Your task to perform on an android device: Open network settings Image 0: 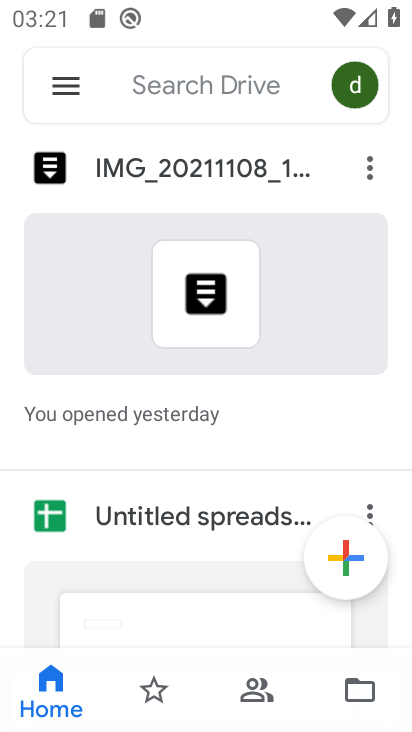
Step 0: press home button
Your task to perform on an android device: Open network settings Image 1: 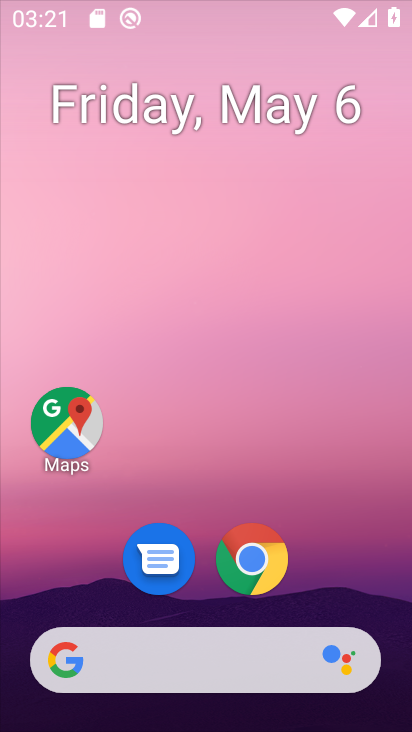
Step 1: drag from (298, 599) to (353, 73)
Your task to perform on an android device: Open network settings Image 2: 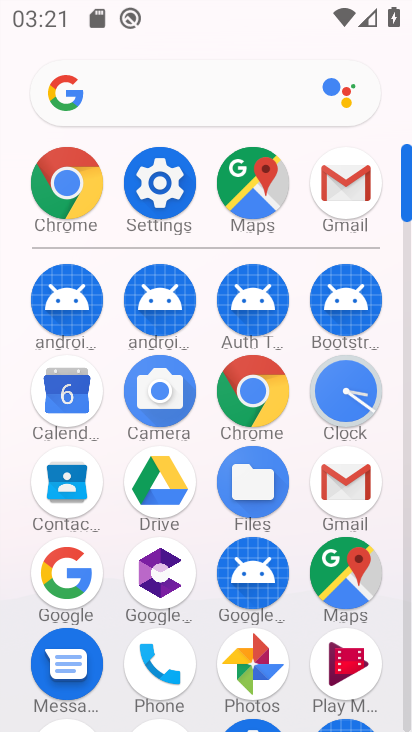
Step 2: click (154, 175)
Your task to perform on an android device: Open network settings Image 3: 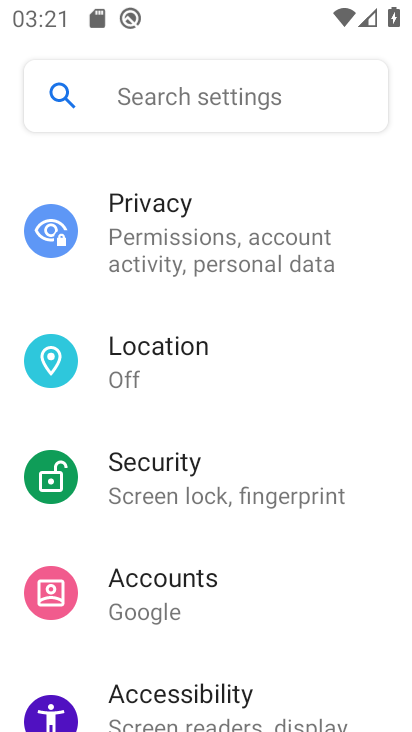
Step 3: drag from (161, 207) to (174, 676)
Your task to perform on an android device: Open network settings Image 4: 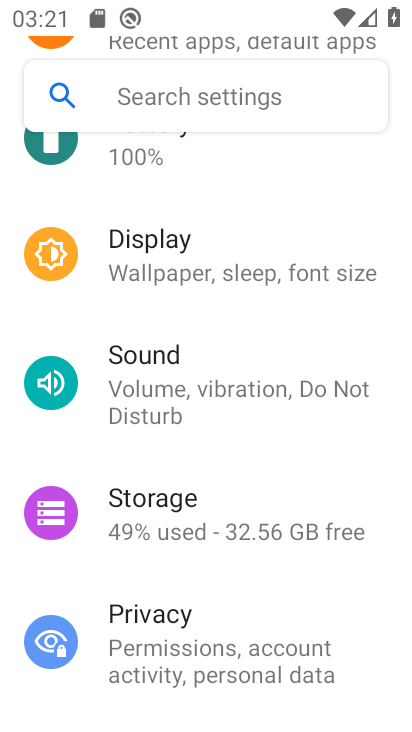
Step 4: drag from (153, 175) to (164, 678)
Your task to perform on an android device: Open network settings Image 5: 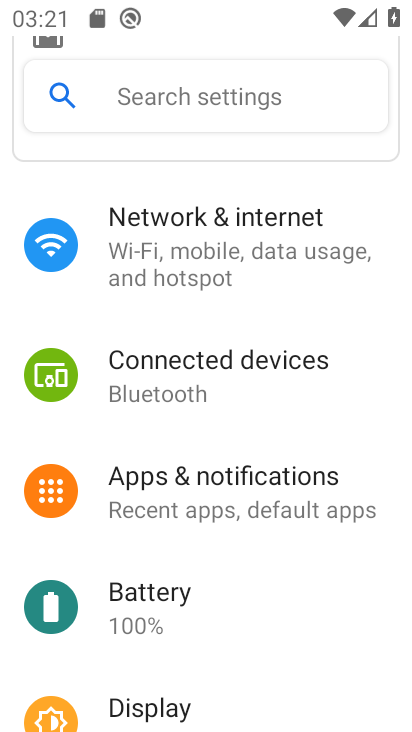
Step 5: click (186, 278)
Your task to perform on an android device: Open network settings Image 6: 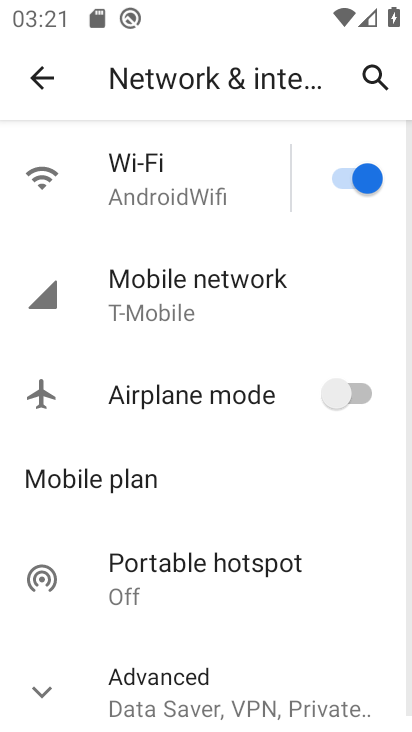
Step 6: click (171, 278)
Your task to perform on an android device: Open network settings Image 7: 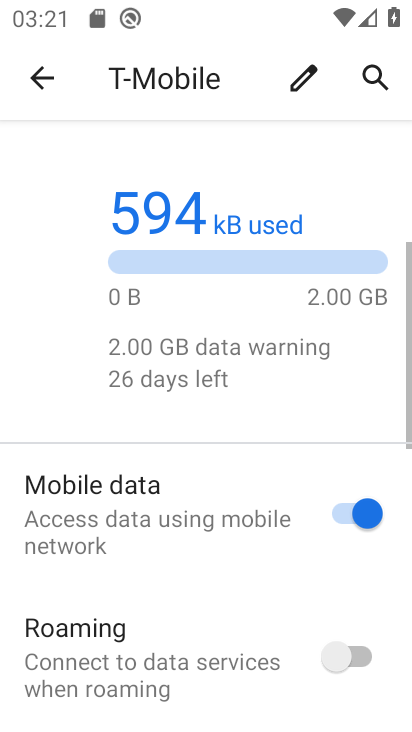
Step 7: task complete